Your task to perform on an android device: open a new tab in the chrome app Image 0: 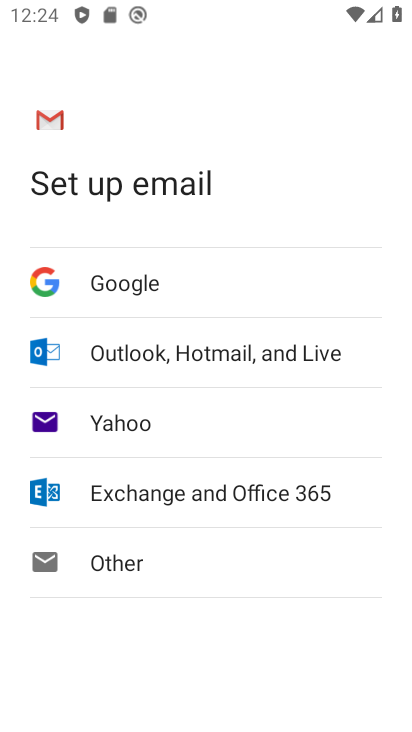
Step 0: press back button
Your task to perform on an android device: open a new tab in the chrome app Image 1: 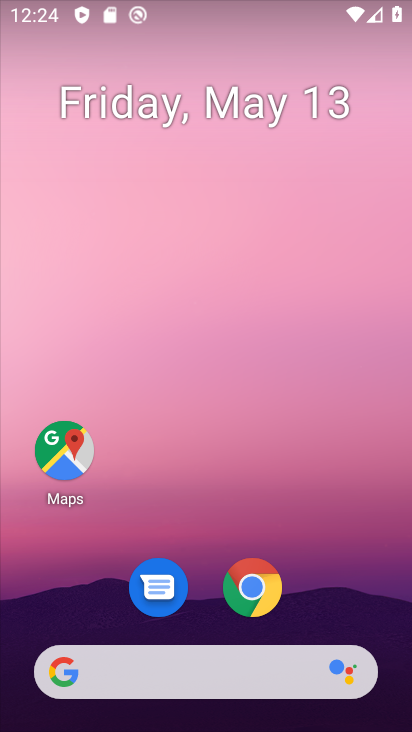
Step 1: click (248, 573)
Your task to perform on an android device: open a new tab in the chrome app Image 2: 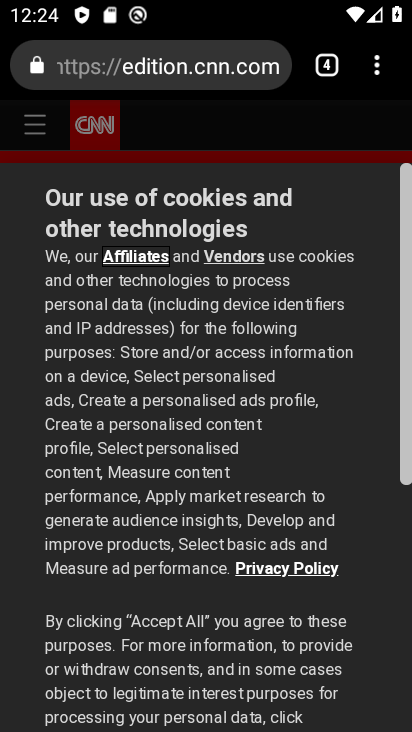
Step 2: click (326, 62)
Your task to perform on an android device: open a new tab in the chrome app Image 3: 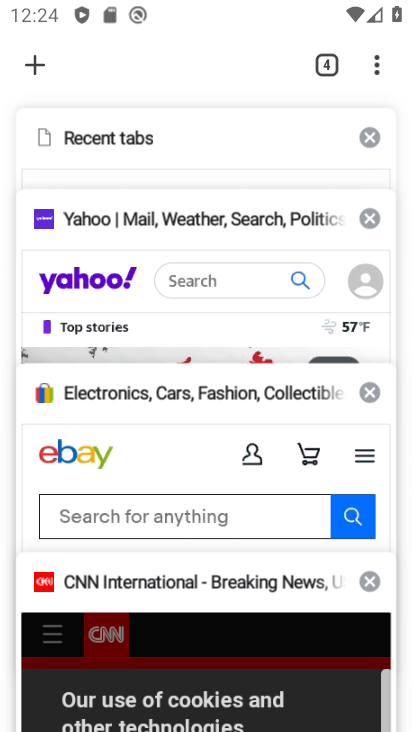
Step 3: click (35, 60)
Your task to perform on an android device: open a new tab in the chrome app Image 4: 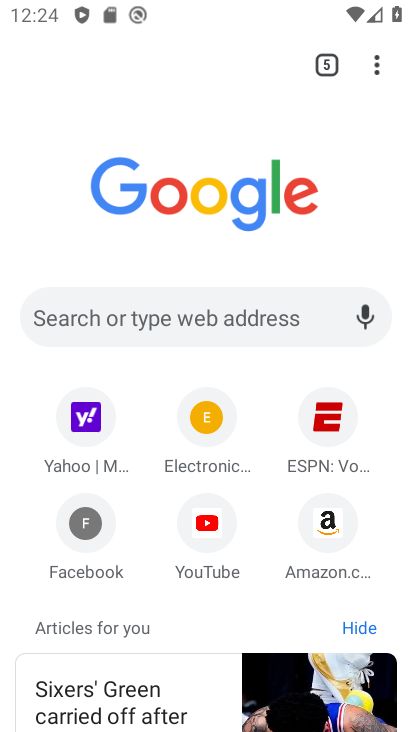
Step 4: task complete